Your task to perform on an android device: change the clock display to show seconds Image 0: 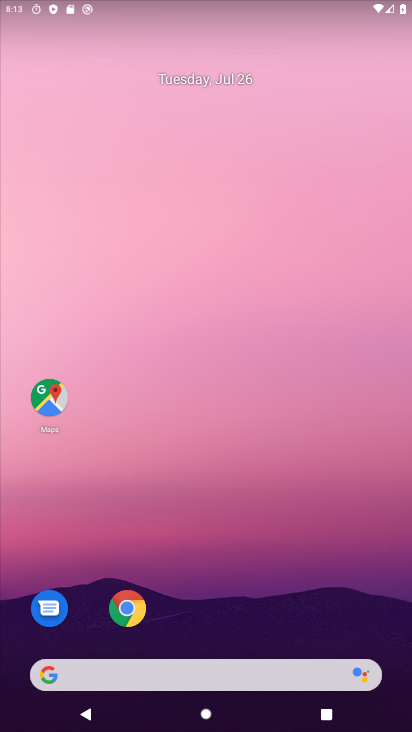
Step 0: press home button
Your task to perform on an android device: change the clock display to show seconds Image 1: 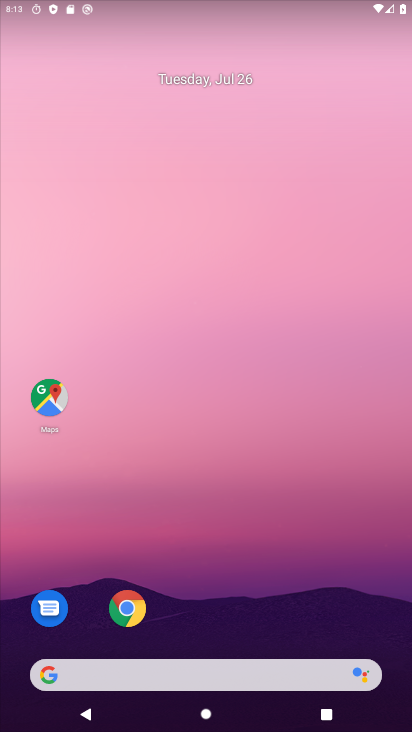
Step 1: drag from (295, 678) to (311, 65)
Your task to perform on an android device: change the clock display to show seconds Image 2: 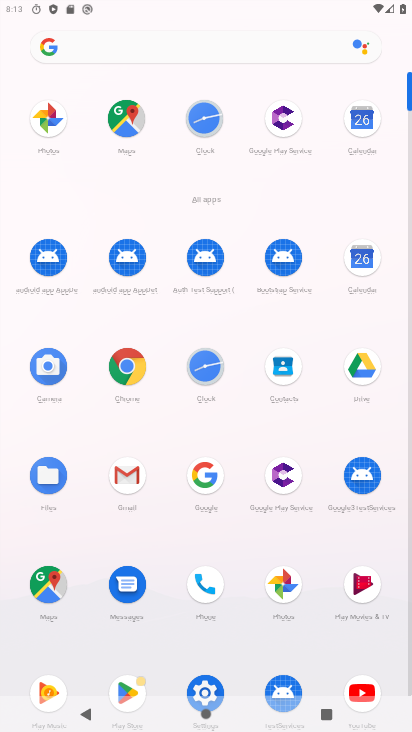
Step 2: click (210, 377)
Your task to perform on an android device: change the clock display to show seconds Image 3: 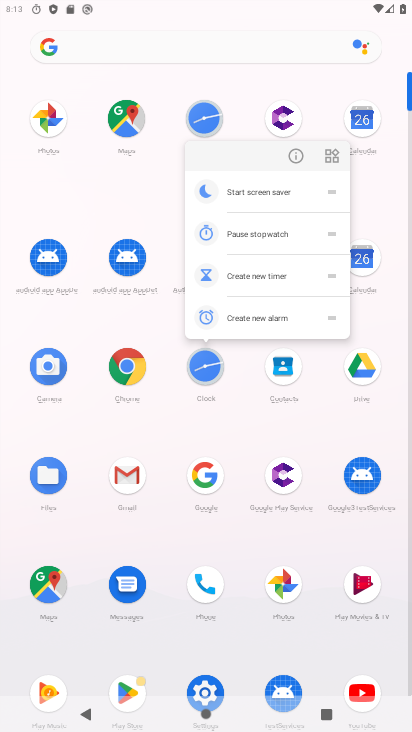
Step 3: click (204, 374)
Your task to perform on an android device: change the clock display to show seconds Image 4: 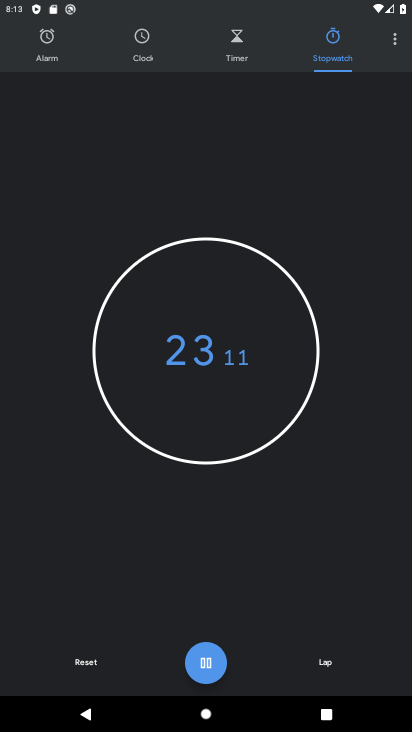
Step 4: click (391, 36)
Your task to perform on an android device: change the clock display to show seconds Image 5: 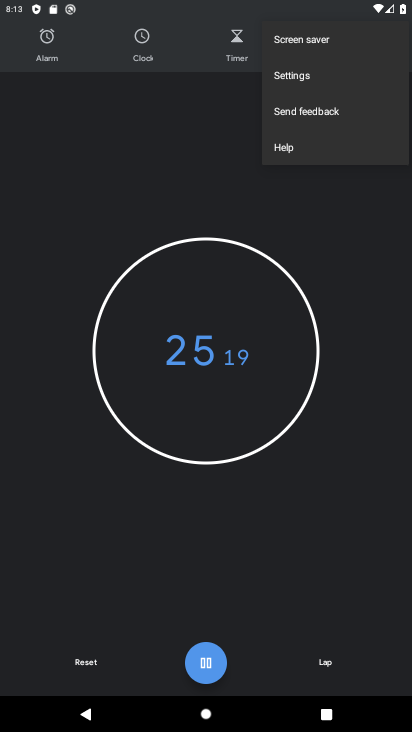
Step 5: click (301, 85)
Your task to perform on an android device: change the clock display to show seconds Image 6: 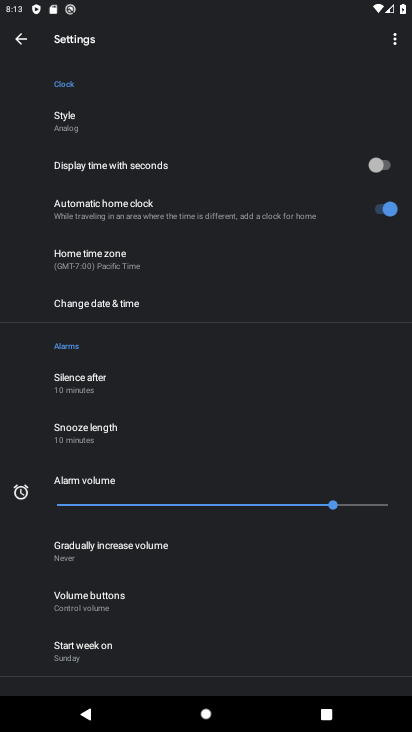
Step 6: click (390, 161)
Your task to perform on an android device: change the clock display to show seconds Image 7: 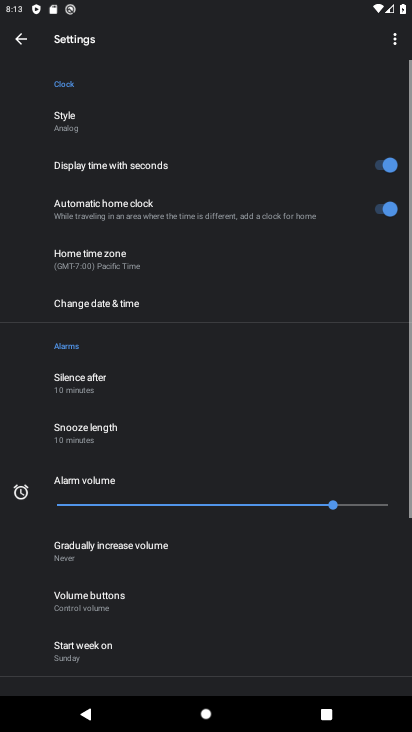
Step 7: task complete